Your task to perform on an android device: What is the news today? Image 0: 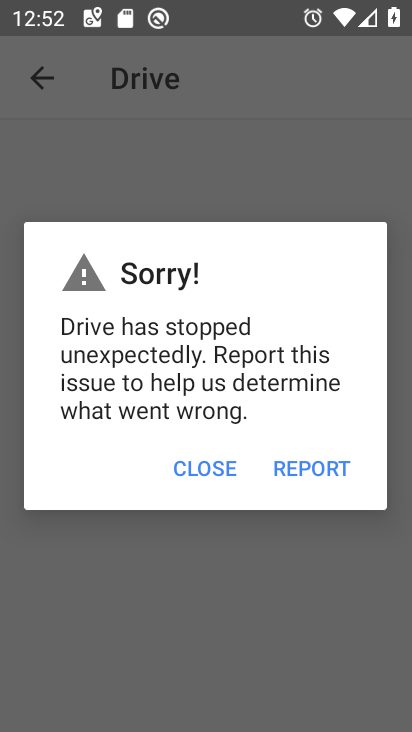
Step 0: press home button
Your task to perform on an android device: What is the news today? Image 1: 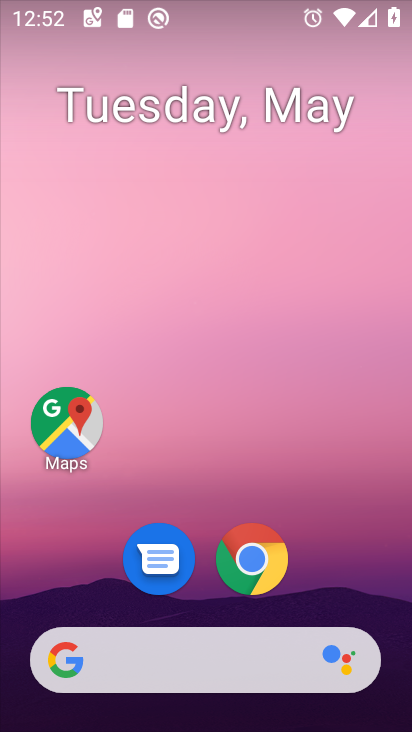
Step 1: click (266, 654)
Your task to perform on an android device: What is the news today? Image 2: 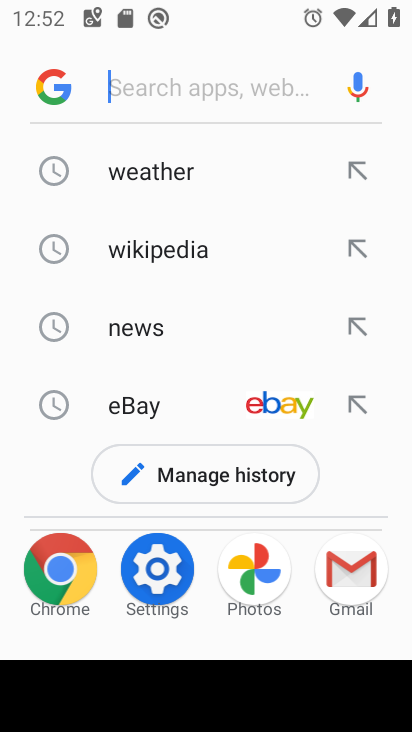
Step 2: click (238, 100)
Your task to perform on an android device: What is the news today? Image 3: 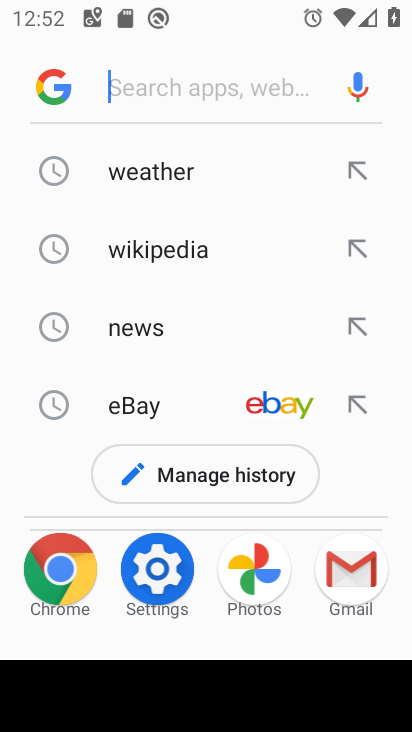
Step 3: type "What is the news today?"
Your task to perform on an android device: What is the news today? Image 4: 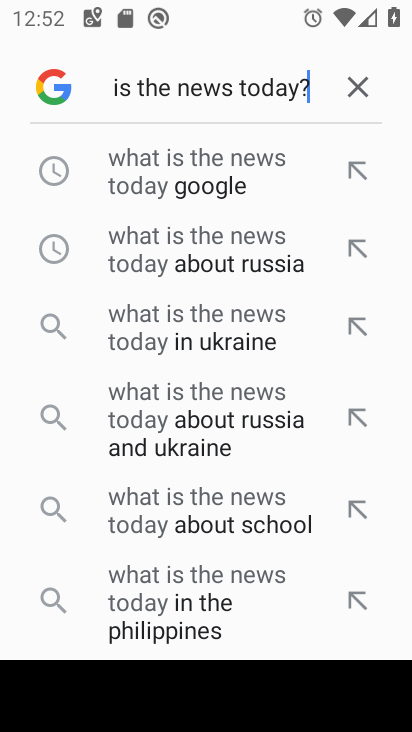
Step 4: click (222, 176)
Your task to perform on an android device: What is the news today? Image 5: 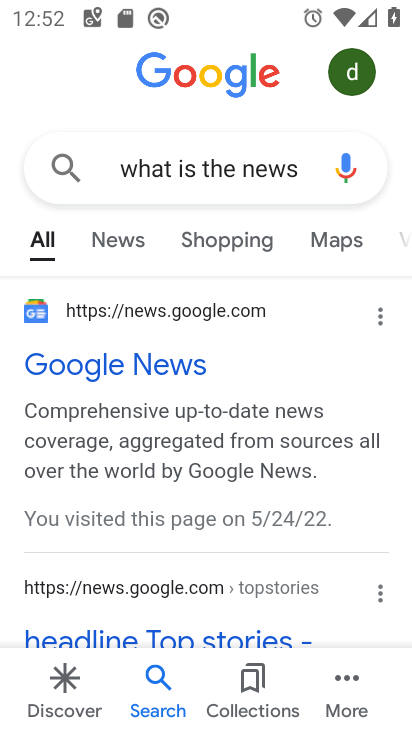
Step 5: click (185, 370)
Your task to perform on an android device: What is the news today? Image 6: 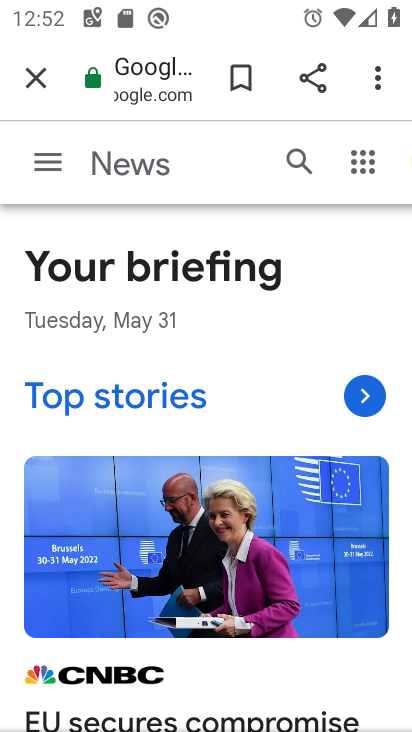
Step 6: task complete